Your task to perform on an android device: Go to Wikipedia Image 0: 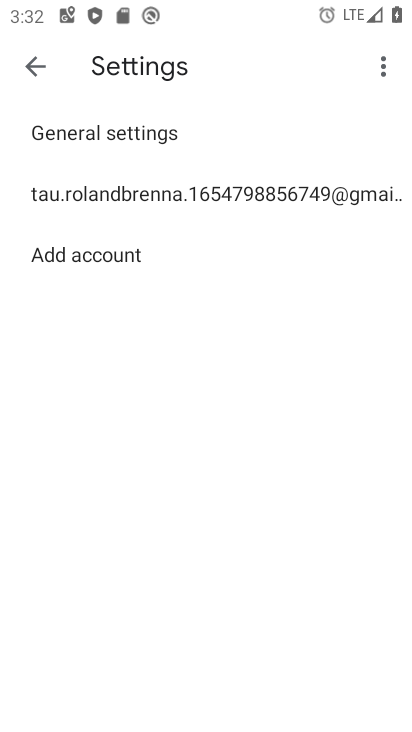
Step 0: press home button
Your task to perform on an android device: Go to Wikipedia Image 1: 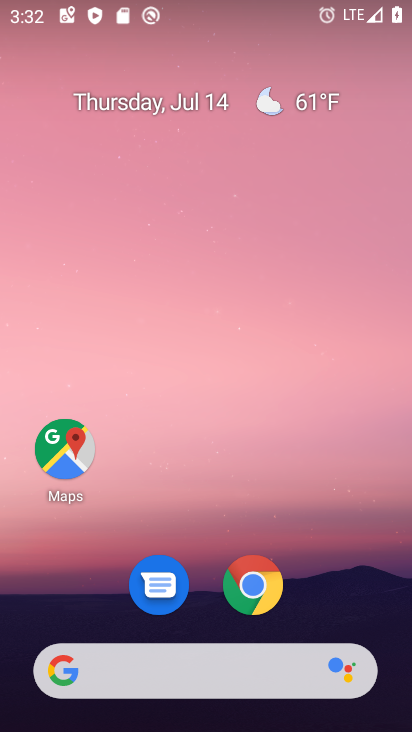
Step 1: click (257, 600)
Your task to perform on an android device: Go to Wikipedia Image 2: 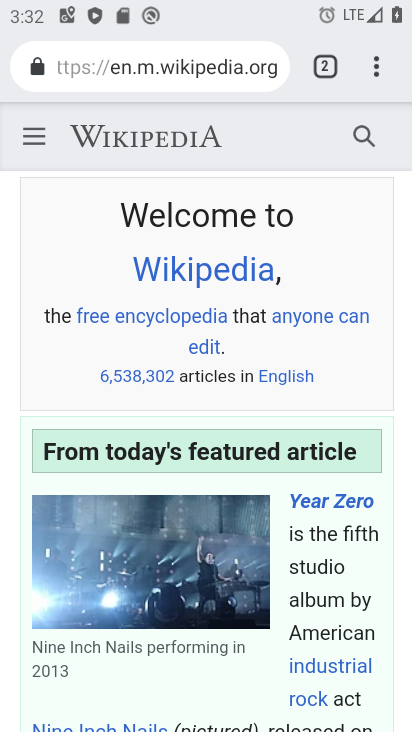
Step 2: task complete